Your task to perform on an android device: Install the Yelp app Image 0: 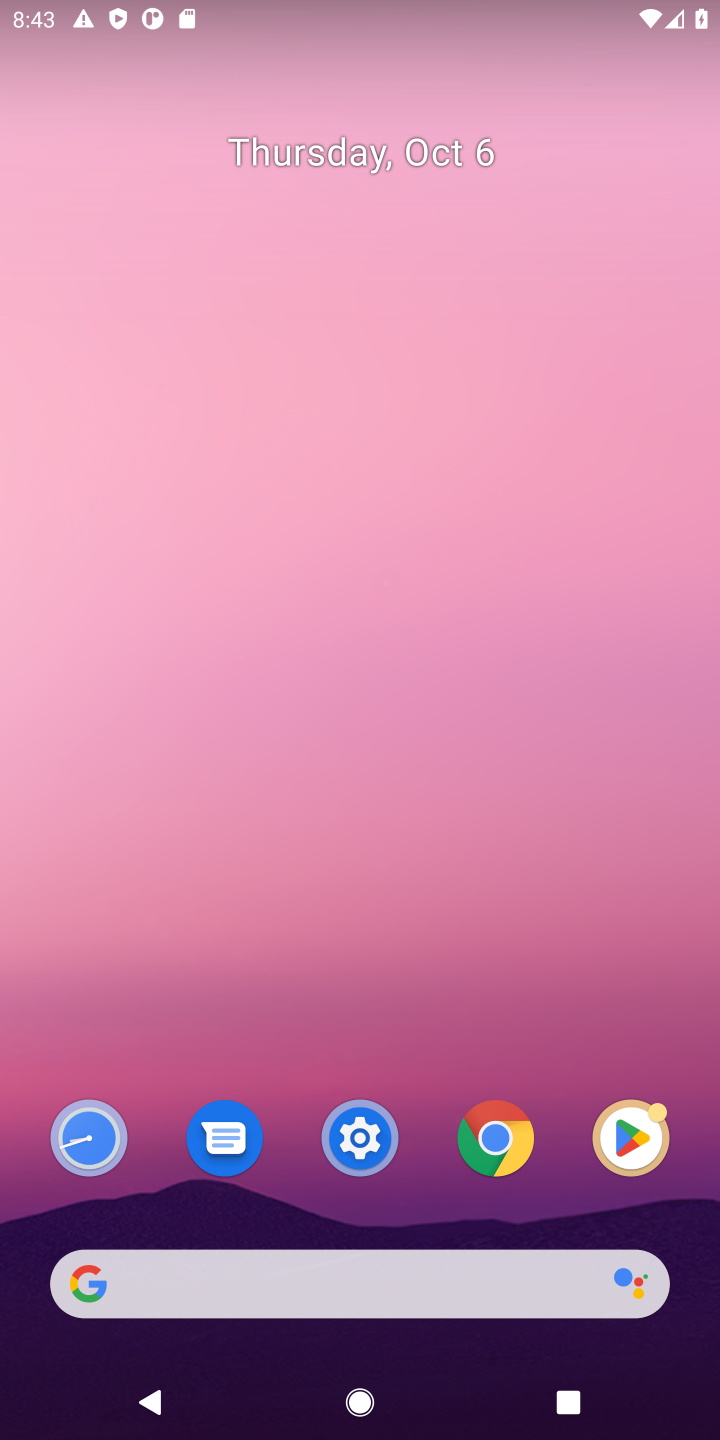
Step 0: click (636, 1143)
Your task to perform on an android device: Install the Yelp app Image 1: 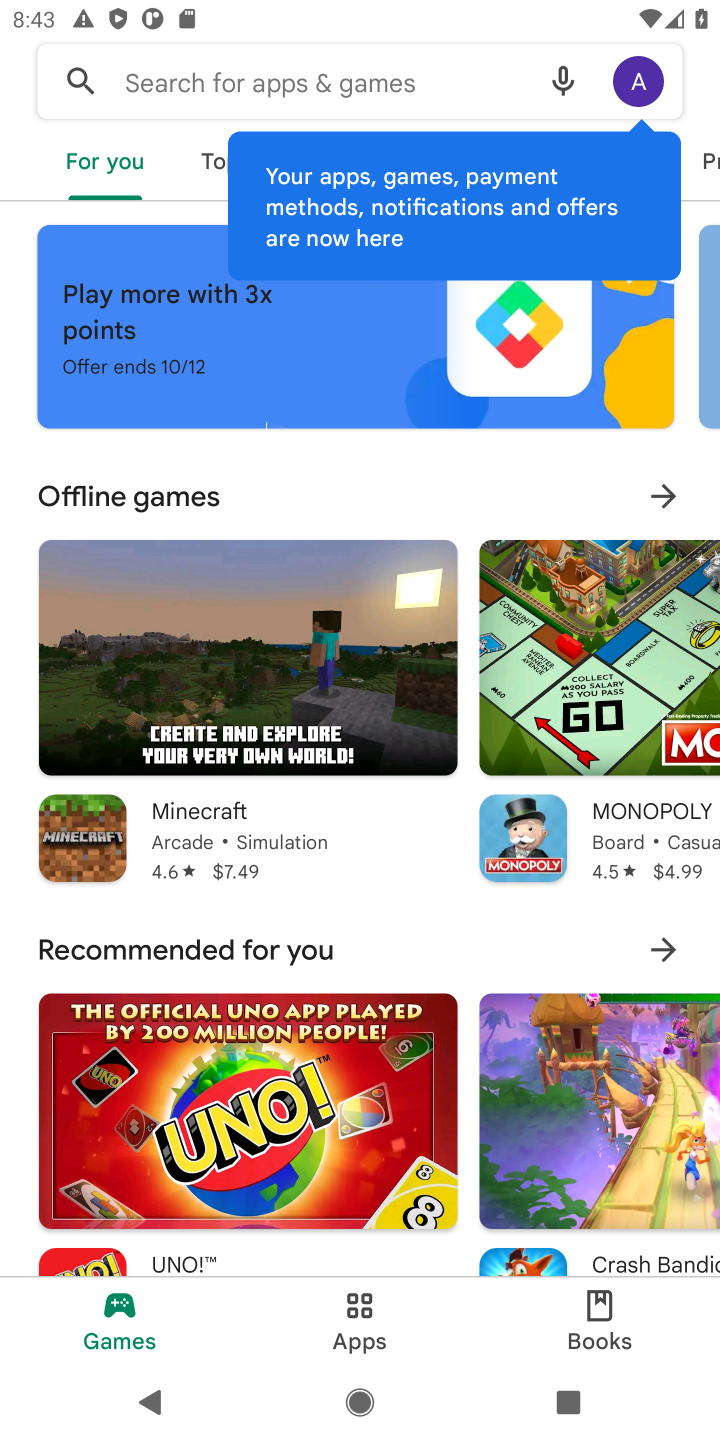
Step 1: click (195, 86)
Your task to perform on an android device: Install the Yelp app Image 2: 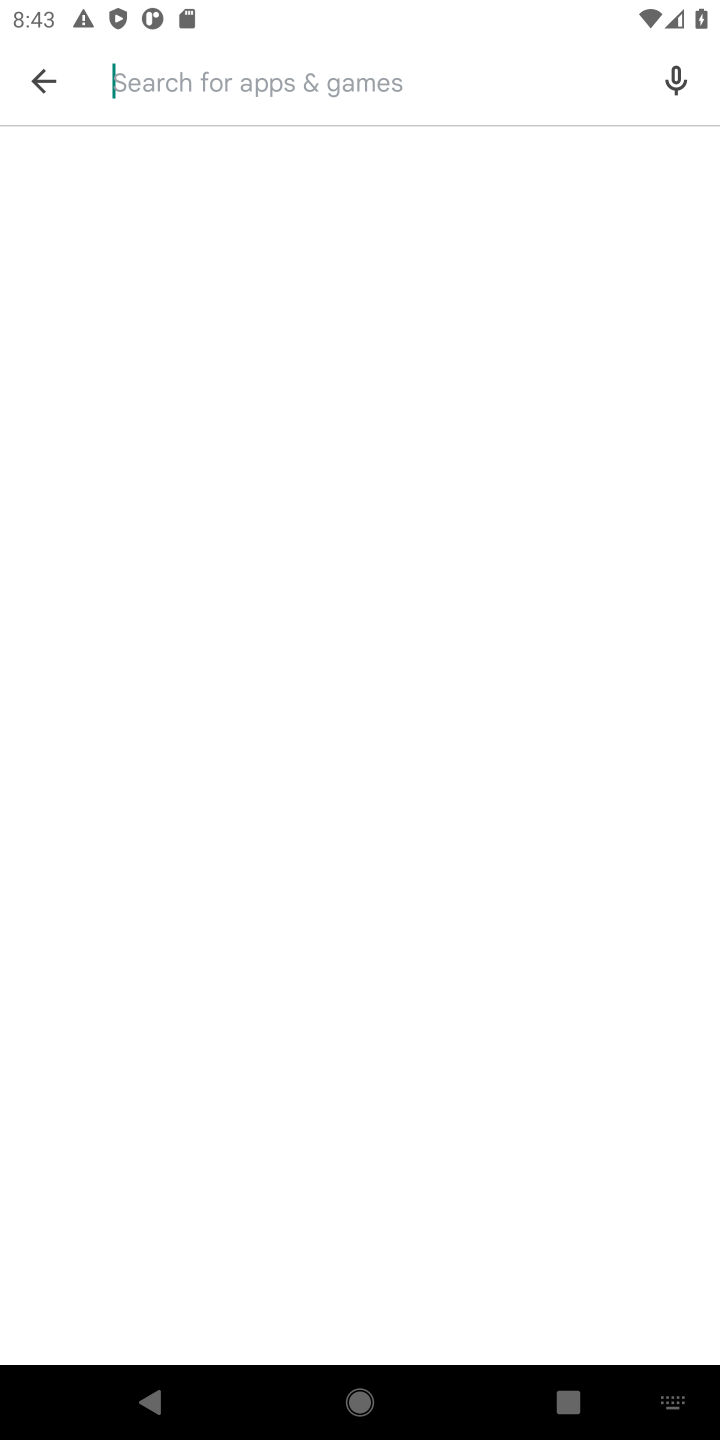
Step 2: type "yelp app"
Your task to perform on an android device: Install the Yelp app Image 3: 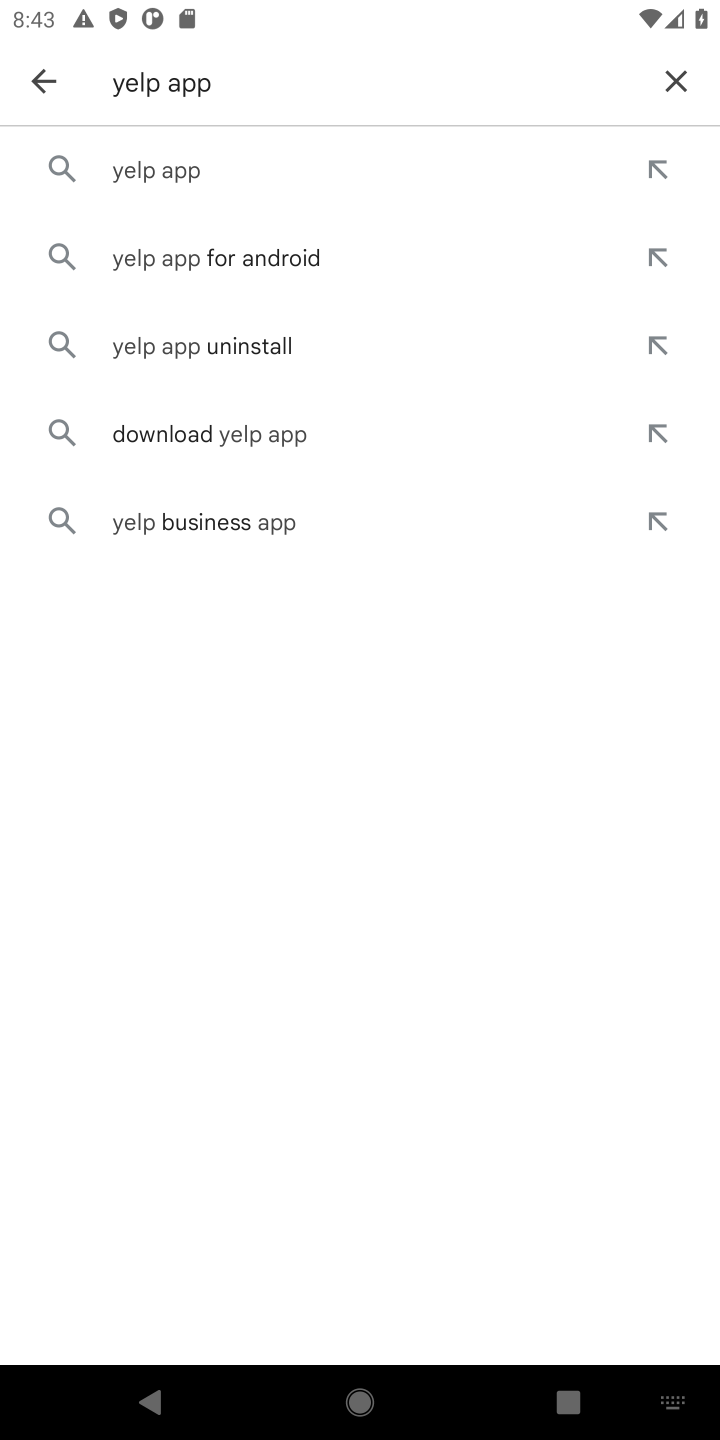
Step 3: click (145, 169)
Your task to perform on an android device: Install the Yelp app Image 4: 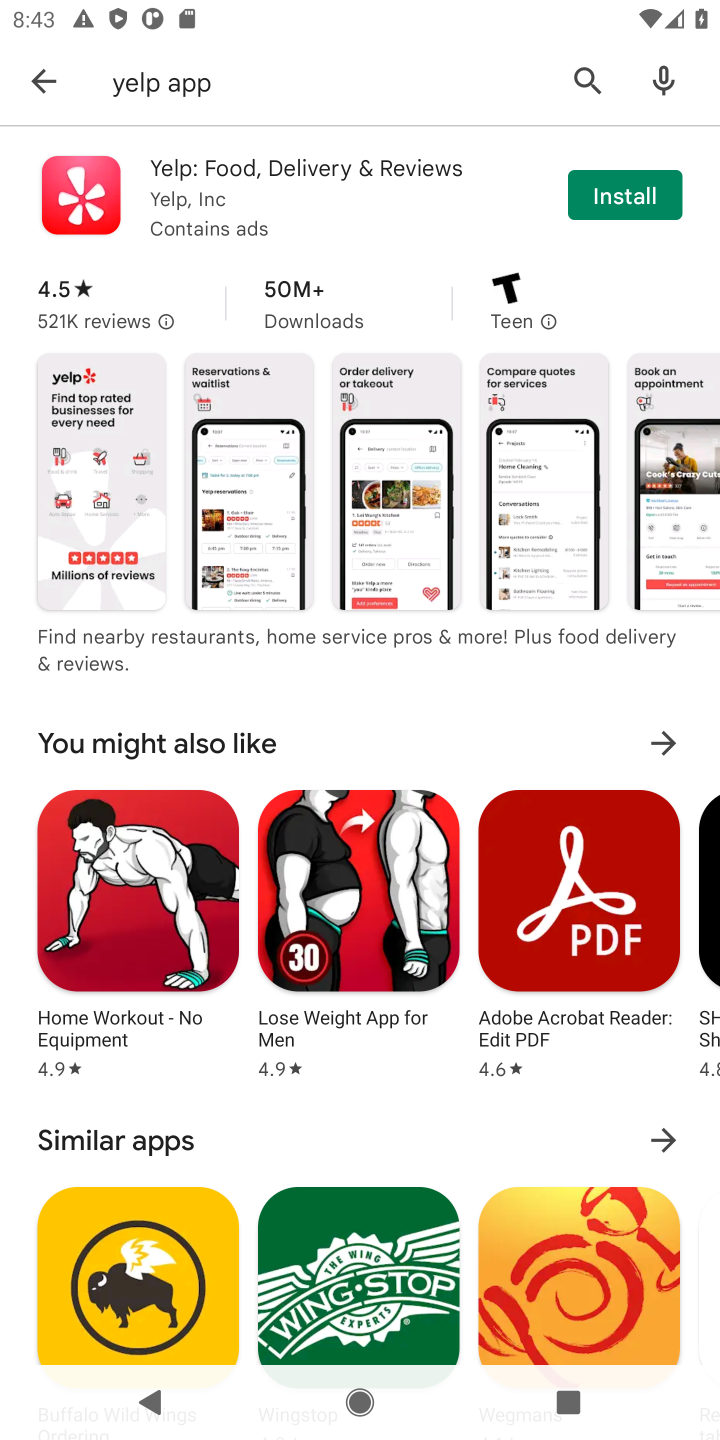
Step 4: click (618, 198)
Your task to perform on an android device: Install the Yelp app Image 5: 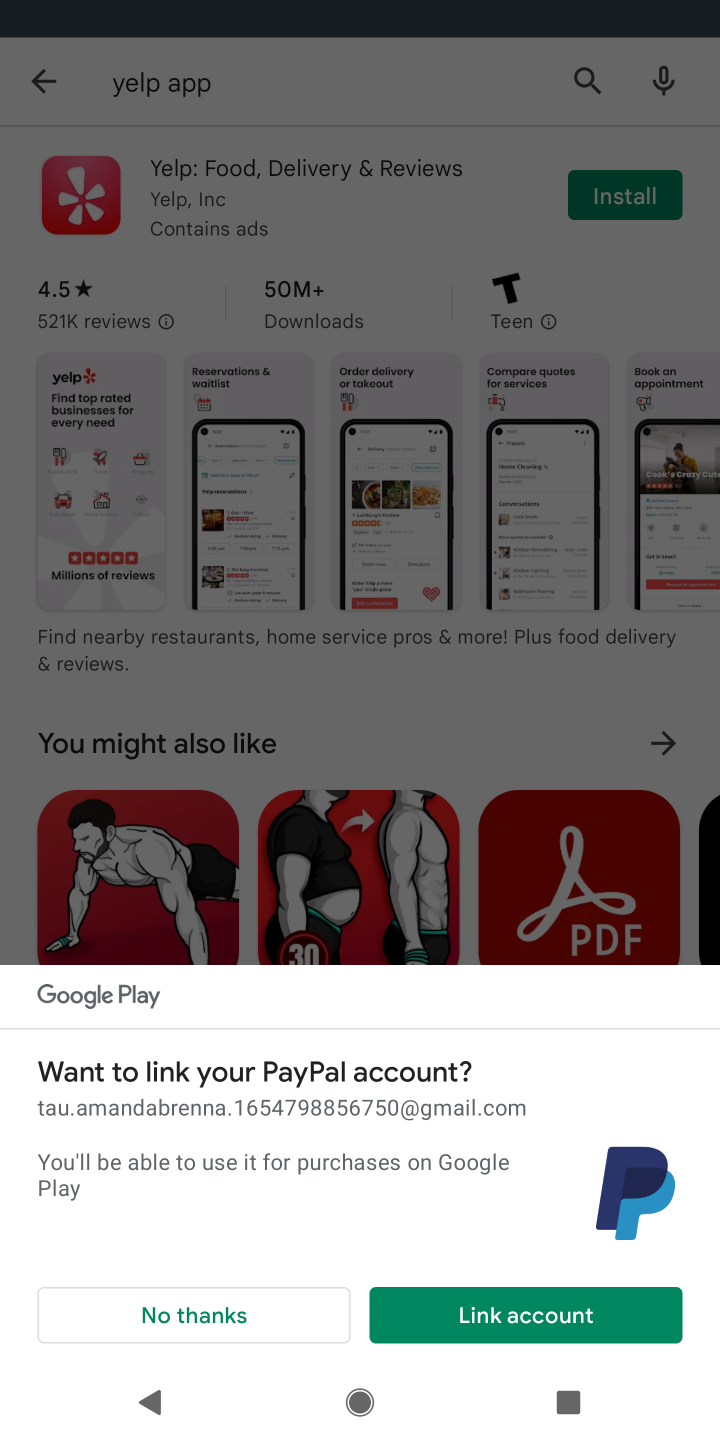
Step 5: click (191, 1316)
Your task to perform on an android device: Install the Yelp app Image 6: 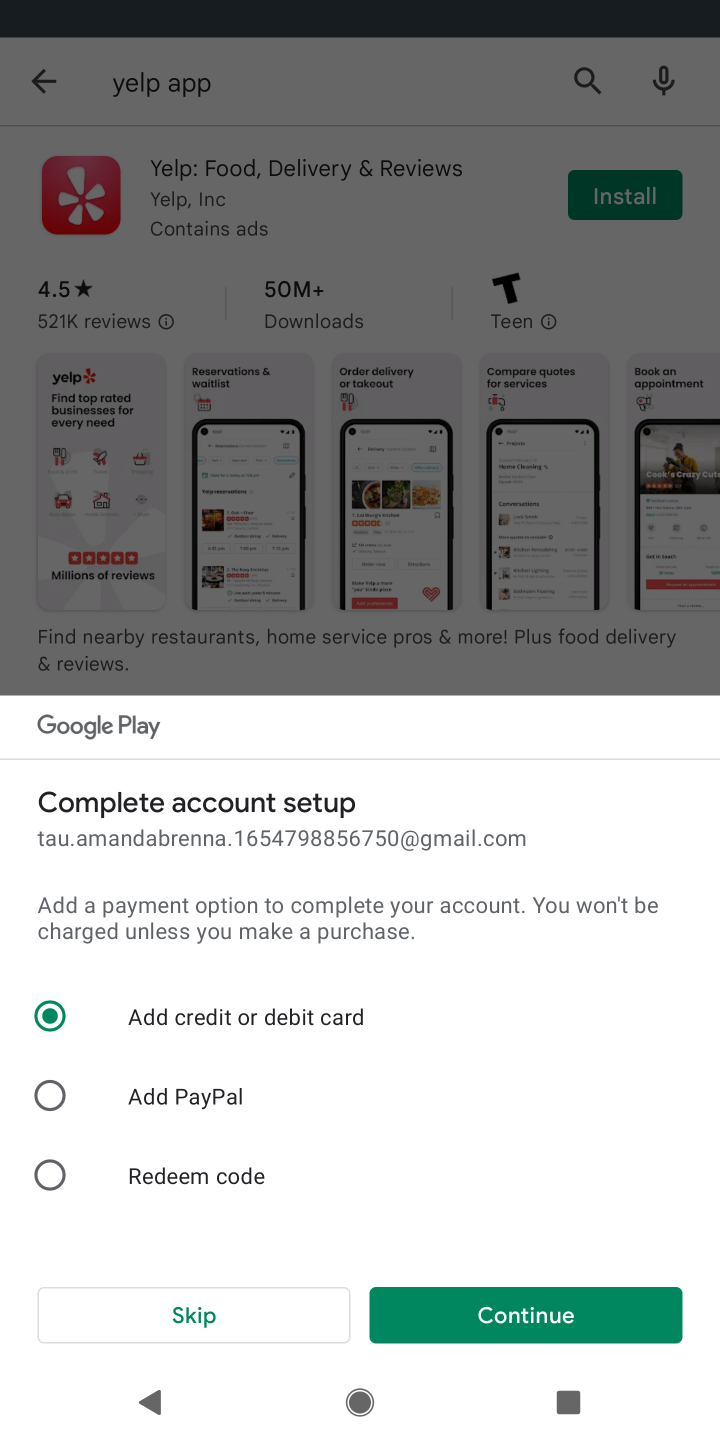
Step 6: click (165, 1322)
Your task to perform on an android device: Install the Yelp app Image 7: 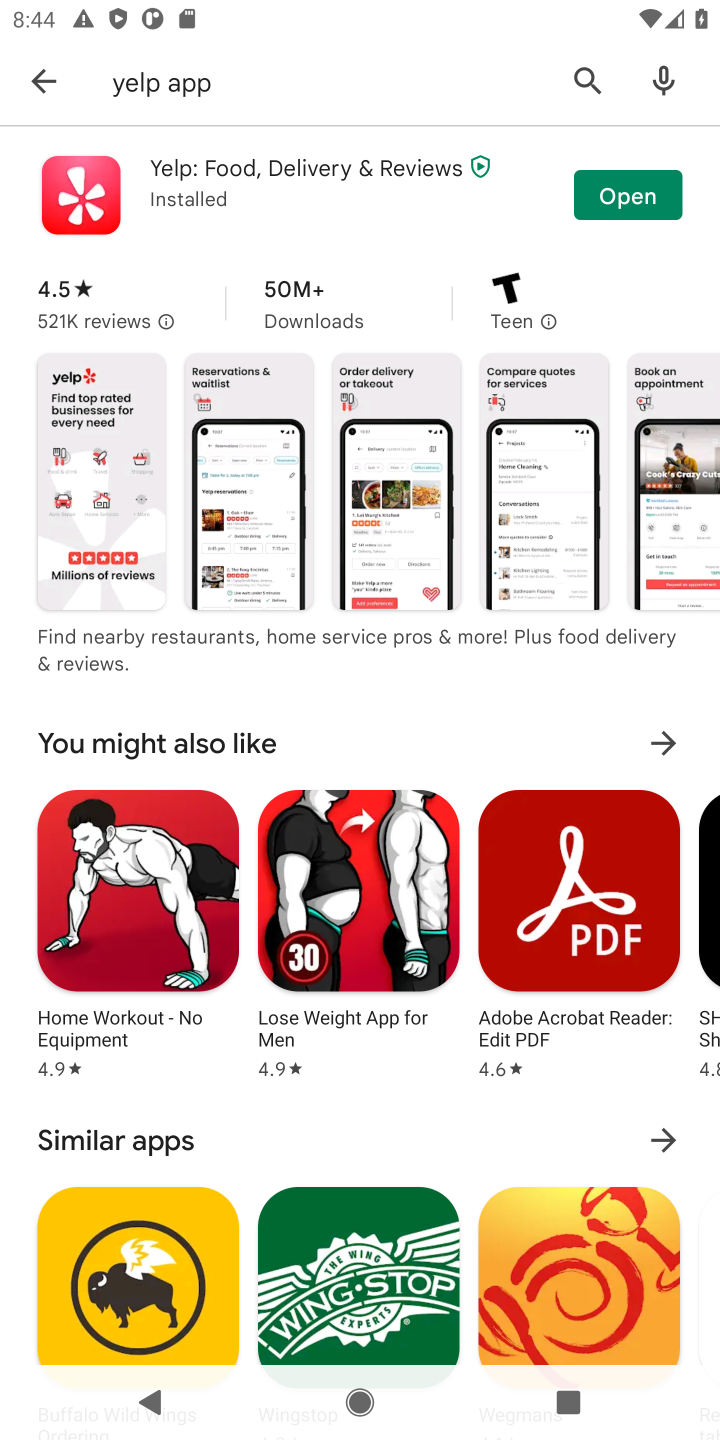
Step 7: task complete